Your task to perform on an android device: open sync settings in chrome Image 0: 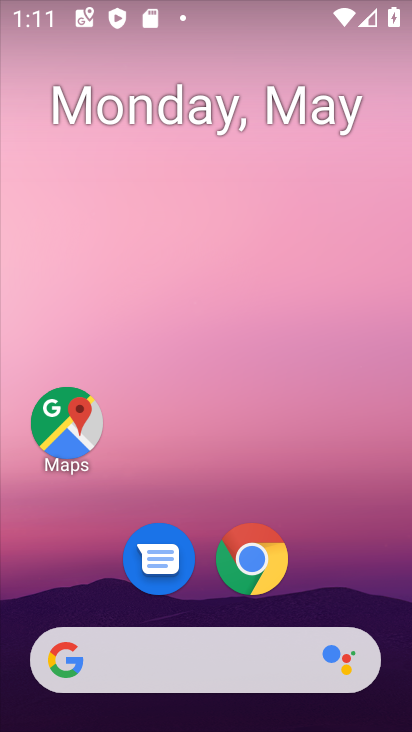
Step 0: click (266, 546)
Your task to perform on an android device: open sync settings in chrome Image 1: 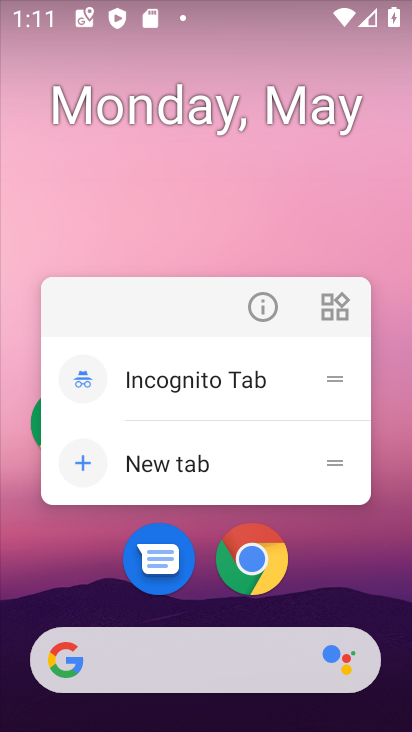
Step 1: click (266, 546)
Your task to perform on an android device: open sync settings in chrome Image 2: 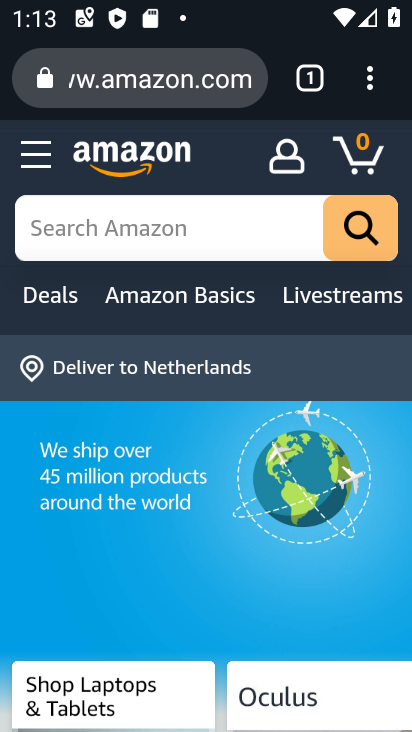
Step 2: click (378, 69)
Your task to perform on an android device: open sync settings in chrome Image 3: 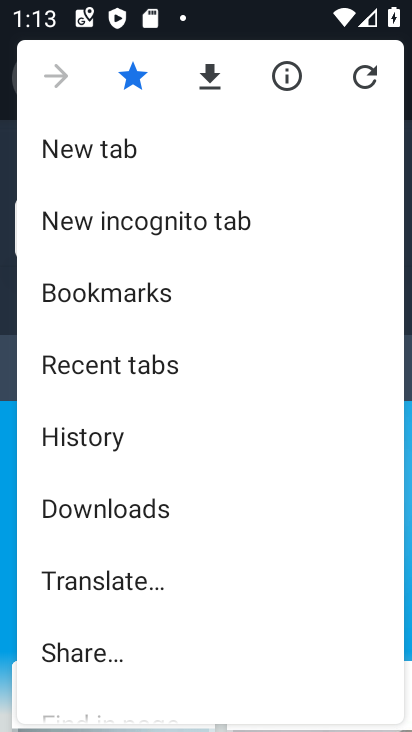
Step 3: drag from (179, 604) to (280, 18)
Your task to perform on an android device: open sync settings in chrome Image 4: 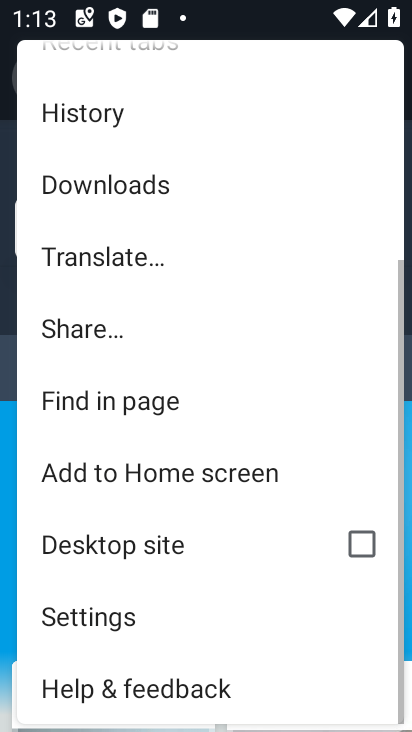
Step 4: click (88, 606)
Your task to perform on an android device: open sync settings in chrome Image 5: 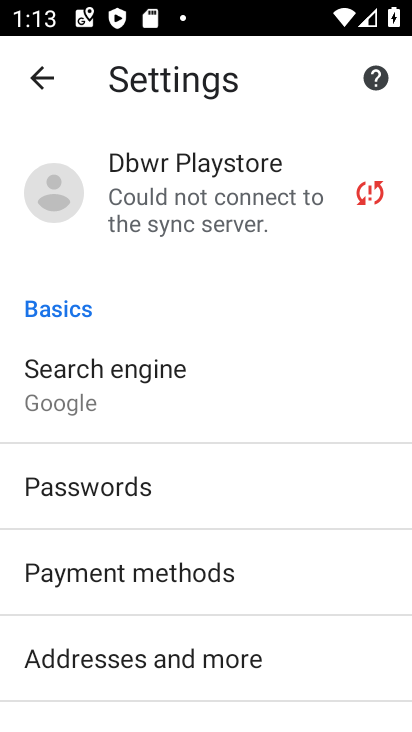
Step 5: click (320, 186)
Your task to perform on an android device: open sync settings in chrome Image 6: 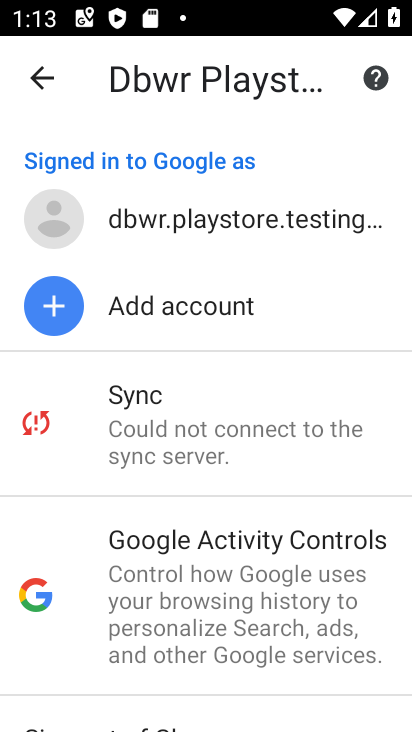
Step 6: task complete